Your task to perform on an android device: Go to eBay Image 0: 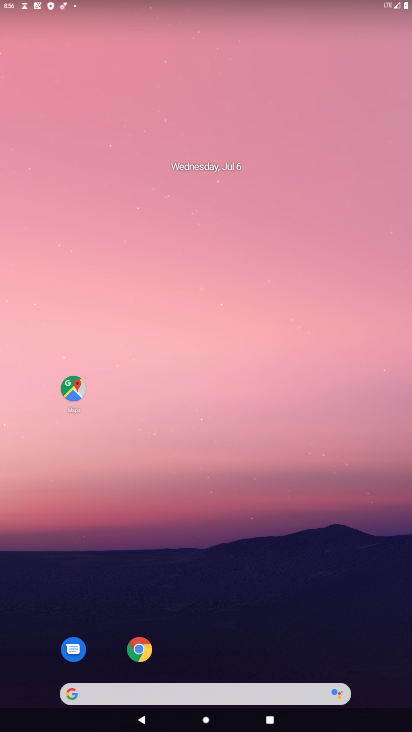
Step 0: drag from (217, 640) to (211, 77)
Your task to perform on an android device: Go to eBay Image 1: 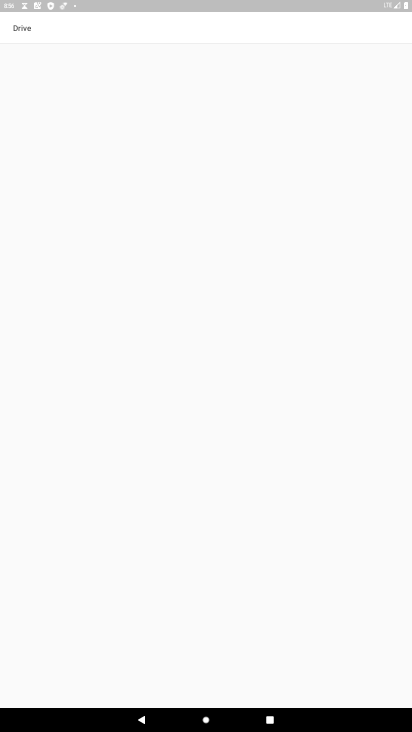
Step 1: press home button
Your task to perform on an android device: Go to eBay Image 2: 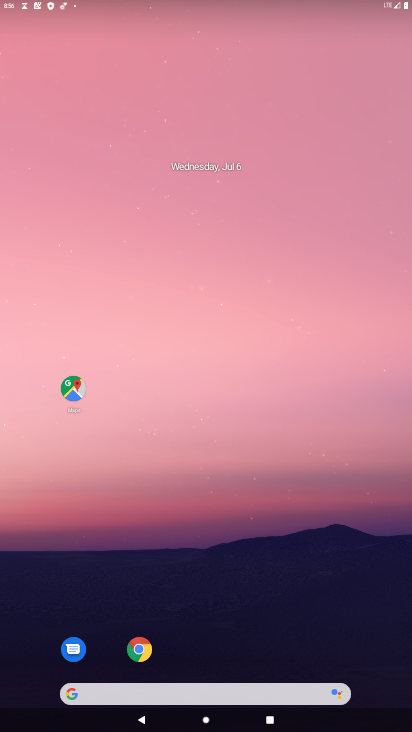
Step 2: drag from (223, 644) to (227, 60)
Your task to perform on an android device: Go to eBay Image 3: 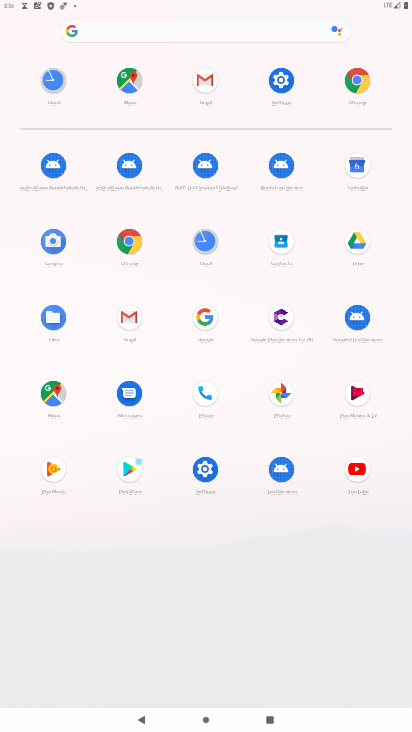
Step 3: click (360, 77)
Your task to perform on an android device: Go to eBay Image 4: 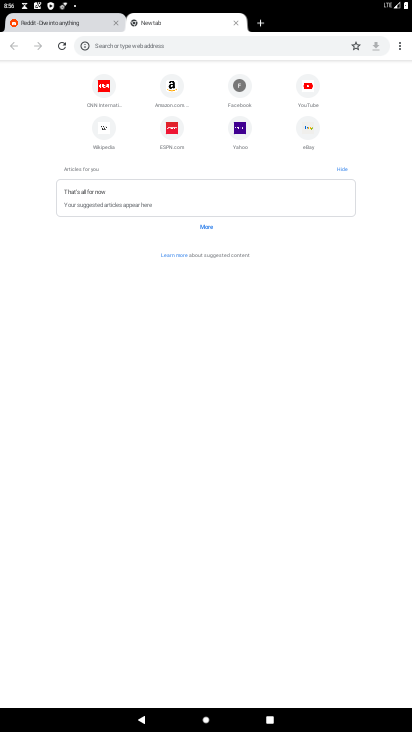
Step 4: click (138, 45)
Your task to perform on an android device: Go to eBay Image 5: 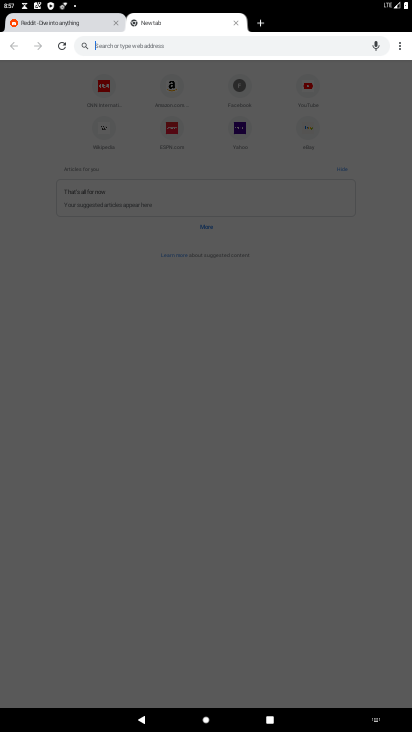
Step 5: type "ebay"
Your task to perform on an android device: Go to eBay Image 6: 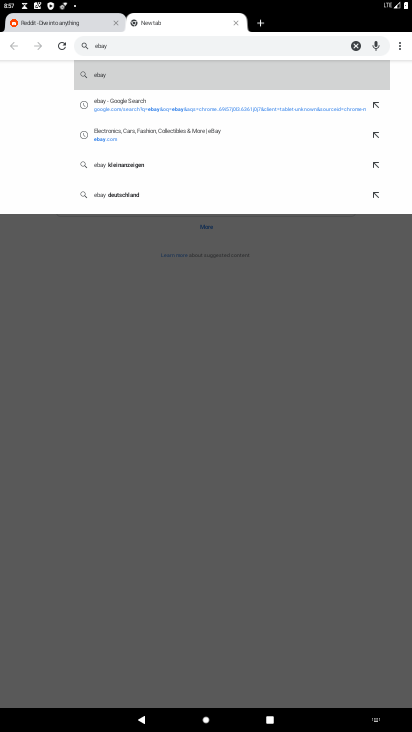
Step 6: click (151, 103)
Your task to perform on an android device: Go to eBay Image 7: 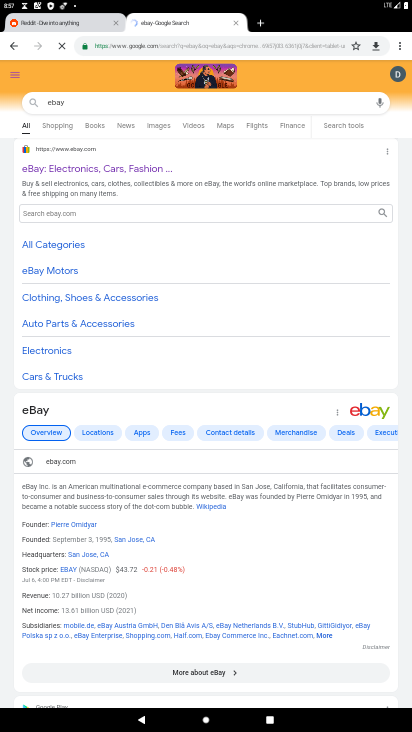
Step 7: click (54, 169)
Your task to perform on an android device: Go to eBay Image 8: 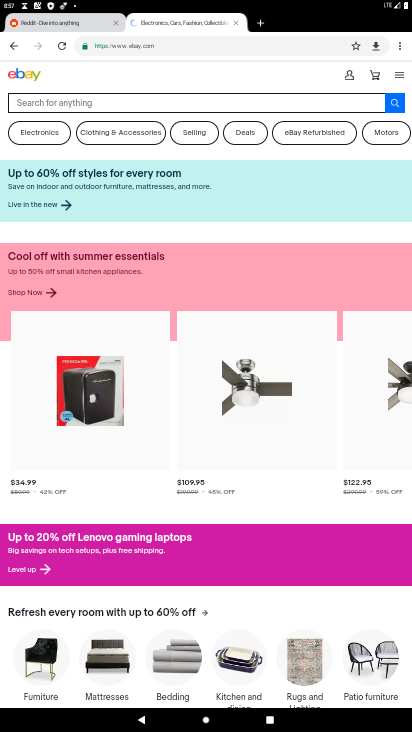
Step 8: task complete